Your task to perform on an android device: refresh tabs in the chrome app Image 0: 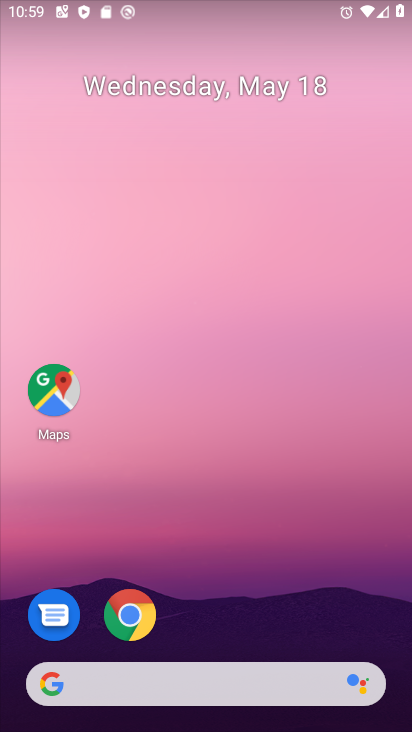
Step 0: click (129, 625)
Your task to perform on an android device: refresh tabs in the chrome app Image 1: 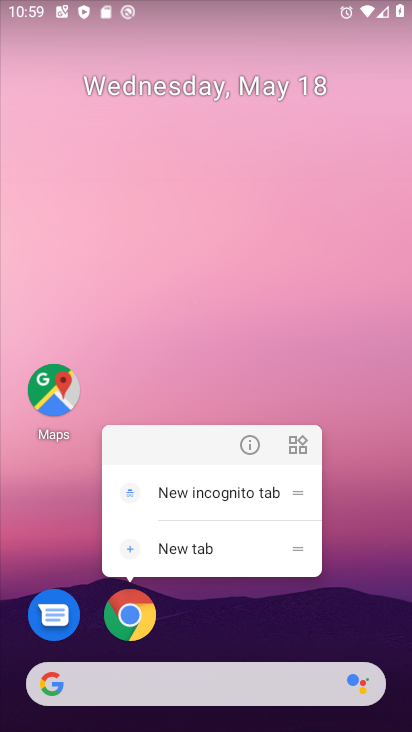
Step 1: click (140, 604)
Your task to perform on an android device: refresh tabs in the chrome app Image 2: 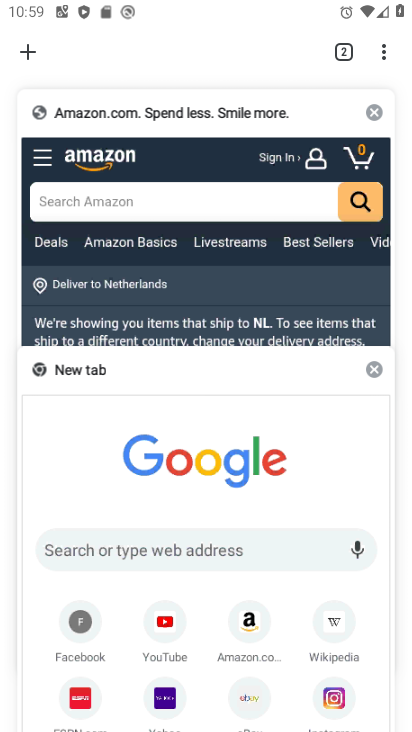
Step 2: click (390, 49)
Your task to perform on an android device: refresh tabs in the chrome app Image 3: 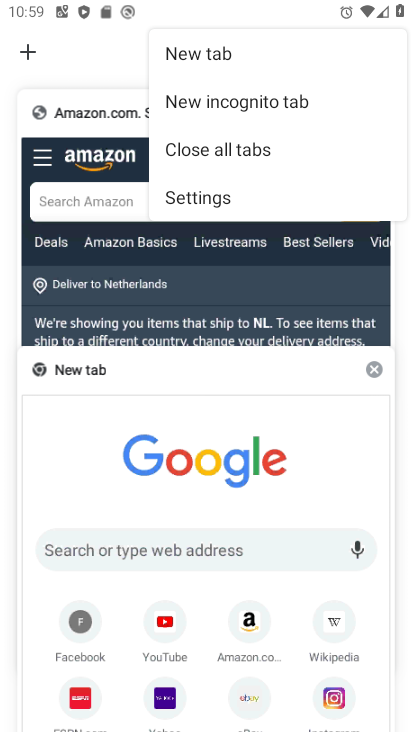
Step 3: click (93, 58)
Your task to perform on an android device: refresh tabs in the chrome app Image 4: 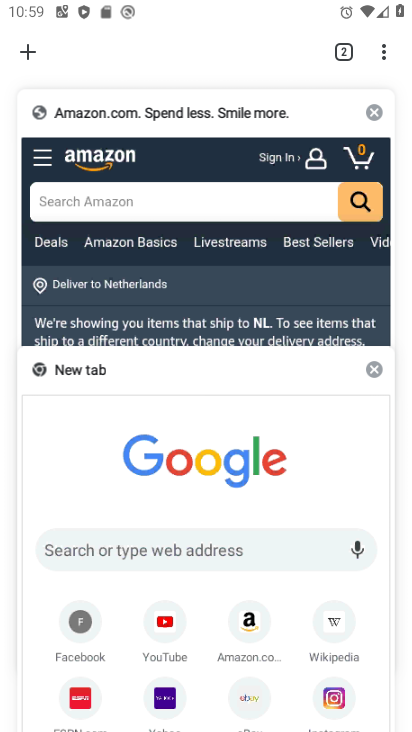
Step 4: click (338, 51)
Your task to perform on an android device: refresh tabs in the chrome app Image 5: 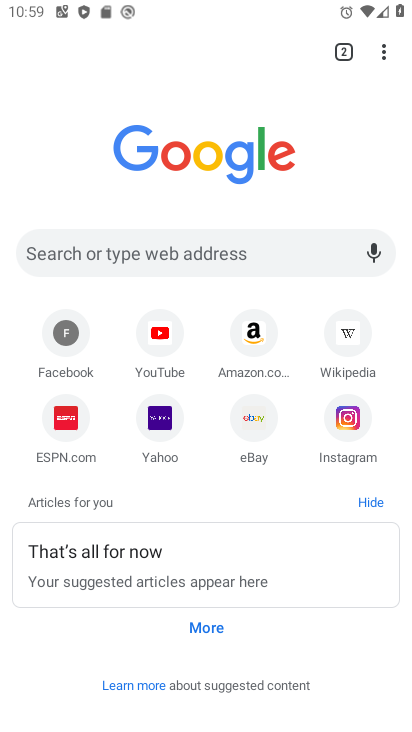
Step 5: click (381, 57)
Your task to perform on an android device: refresh tabs in the chrome app Image 6: 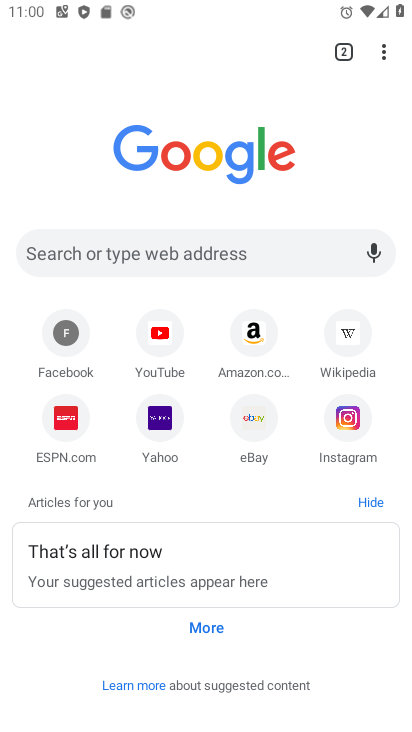
Step 6: click (388, 48)
Your task to perform on an android device: refresh tabs in the chrome app Image 7: 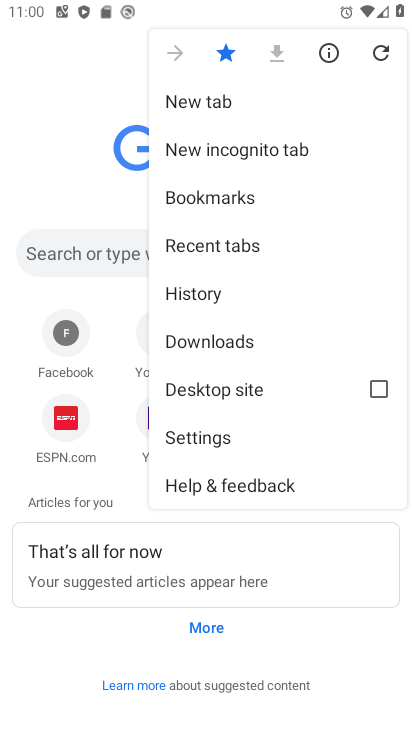
Step 7: click (378, 54)
Your task to perform on an android device: refresh tabs in the chrome app Image 8: 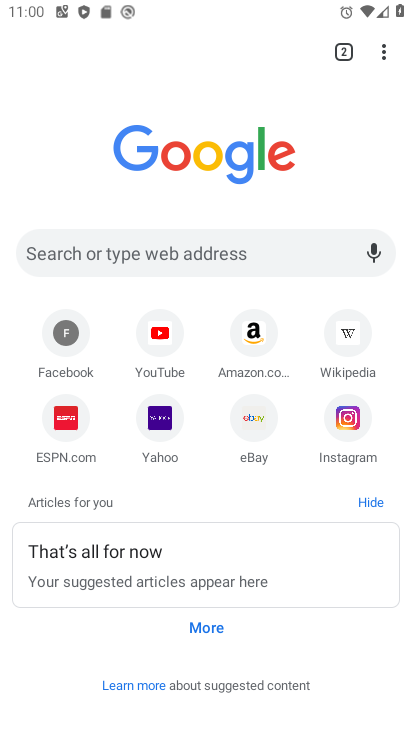
Step 8: task complete